Your task to perform on an android device: Go to calendar. Show me events next week Image 0: 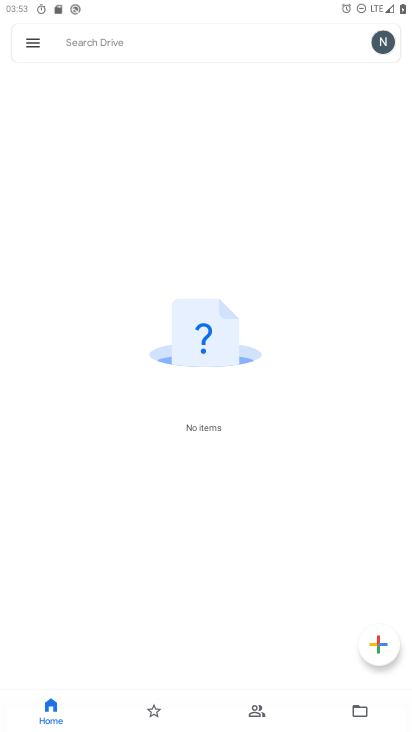
Step 0: drag from (285, 621) to (288, 297)
Your task to perform on an android device: Go to calendar. Show me events next week Image 1: 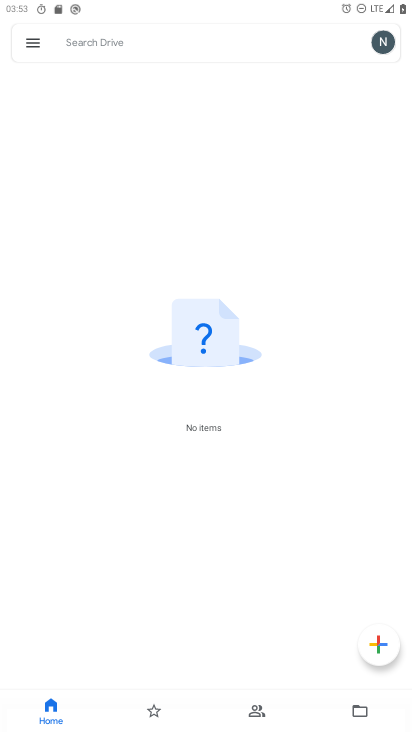
Step 1: press home button
Your task to perform on an android device: Go to calendar. Show me events next week Image 2: 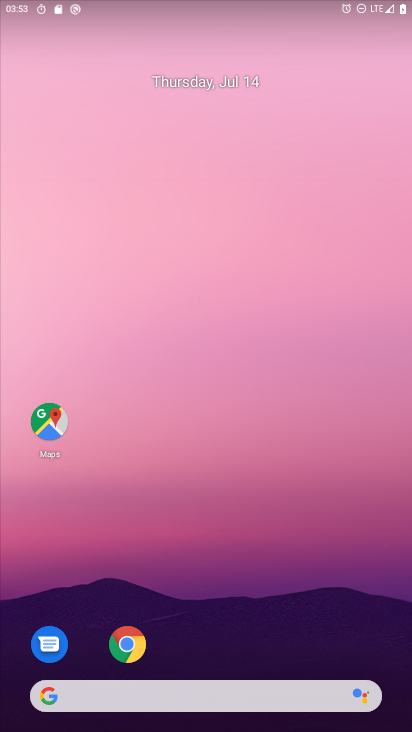
Step 2: drag from (279, 573) to (256, 184)
Your task to perform on an android device: Go to calendar. Show me events next week Image 3: 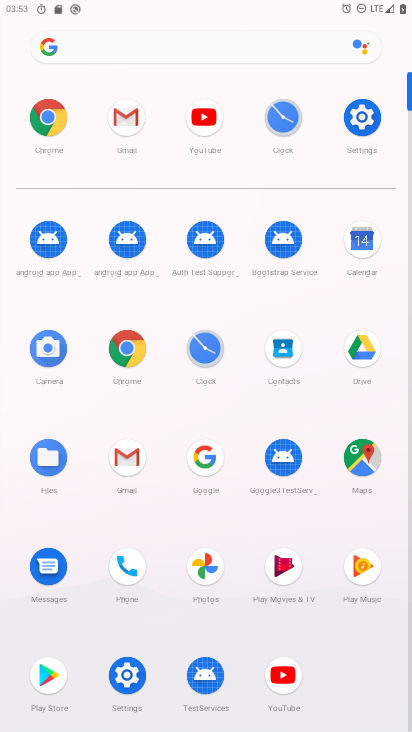
Step 3: click (364, 247)
Your task to perform on an android device: Go to calendar. Show me events next week Image 4: 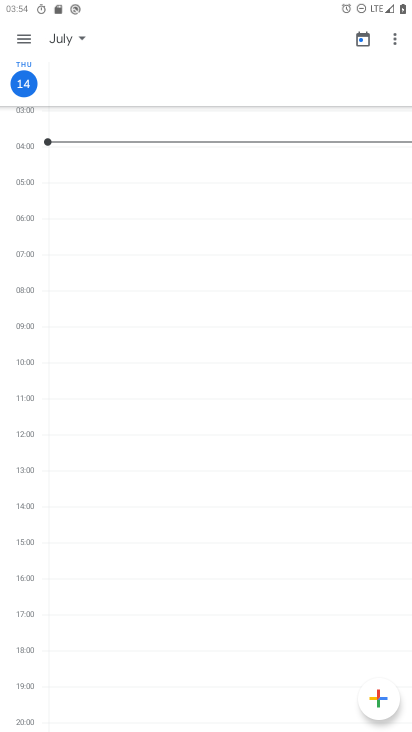
Step 4: click (59, 41)
Your task to perform on an android device: Go to calendar. Show me events next week Image 5: 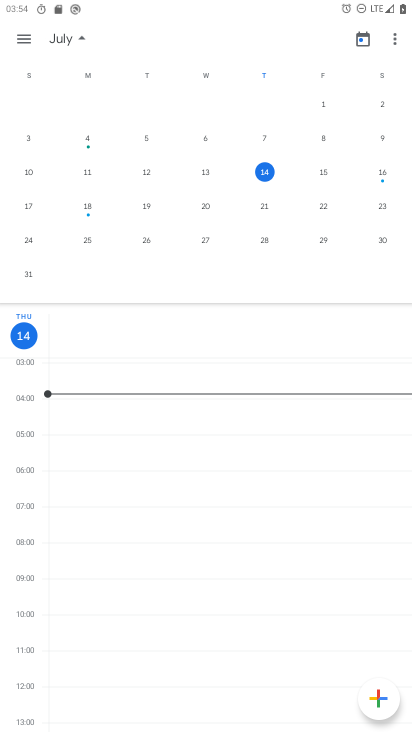
Step 5: click (149, 208)
Your task to perform on an android device: Go to calendar. Show me events next week Image 6: 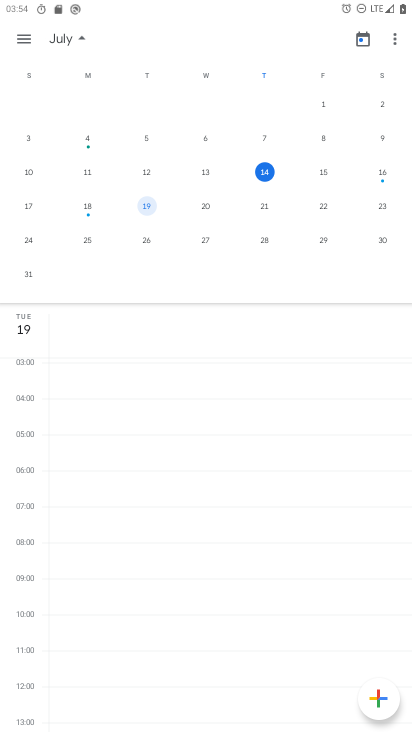
Step 6: click (15, 28)
Your task to perform on an android device: Go to calendar. Show me events next week Image 7: 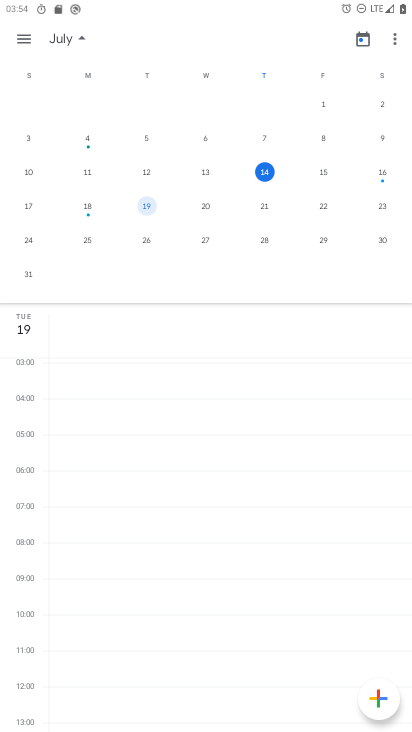
Step 7: click (23, 34)
Your task to perform on an android device: Go to calendar. Show me events next week Image 8: 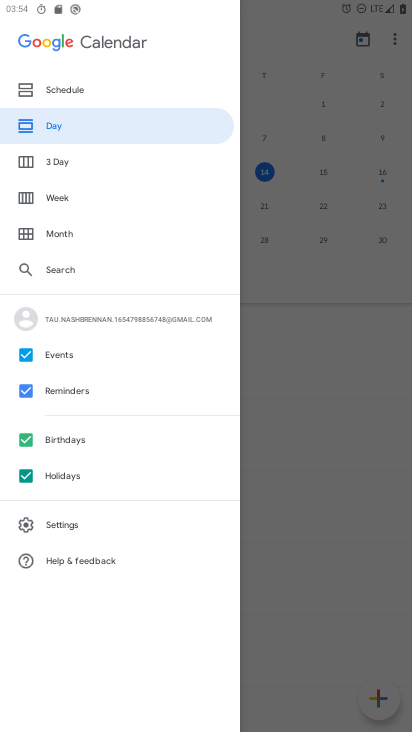
Step 8: drag from (78, 166) to (49, 205)
Your task to perform on an android device: Go to calendar. Show me events next week Image 9: 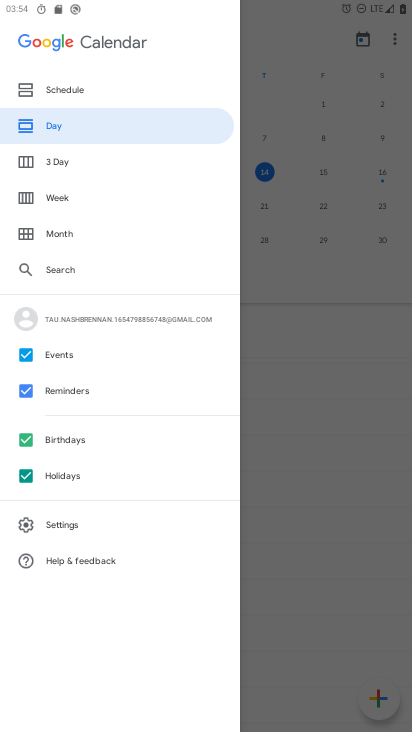
Step 9: click (52, 204)
Your task to perform on an android device: Go to calendar. Show me events next week Image 10: 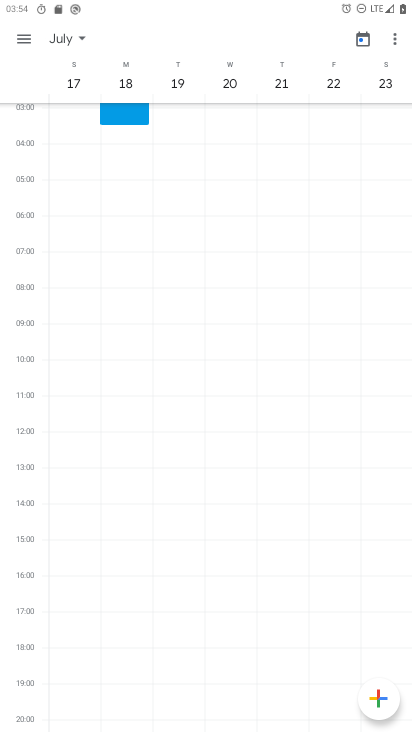
Step 10: task complete